Your task to perform on an android device: What is the recent news? Image 0: 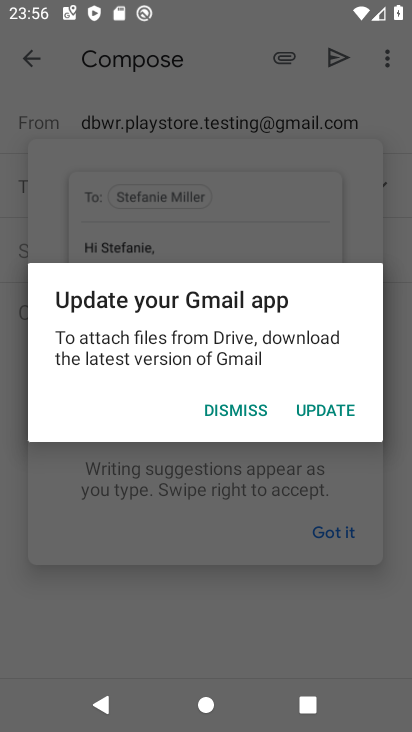
Step 0: press home button
Your task to perform on an android device: What is the recent news? Image 1: 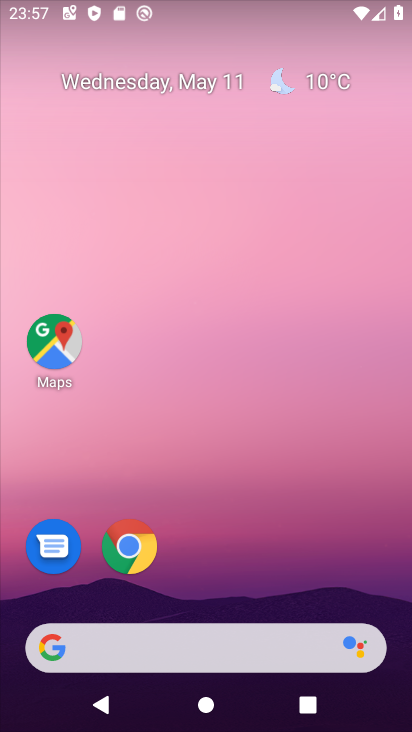
Step 1: click (127, 545)
Your task to perform on an android device: What is the recent news? Image 2: 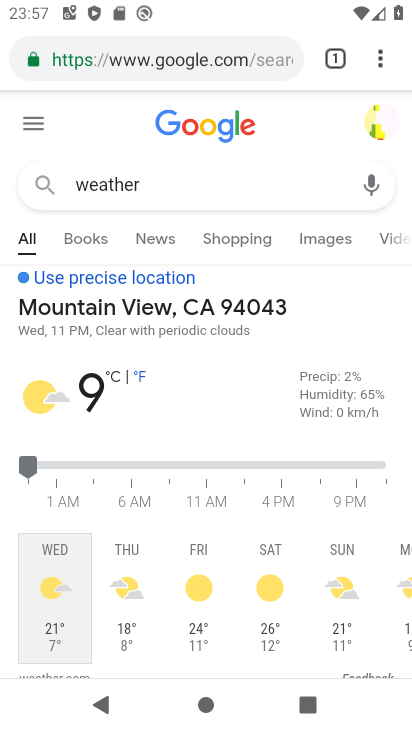
Step 2: click (99, 66)
Your task to perform on an android device: What is the recent news? Image 3: 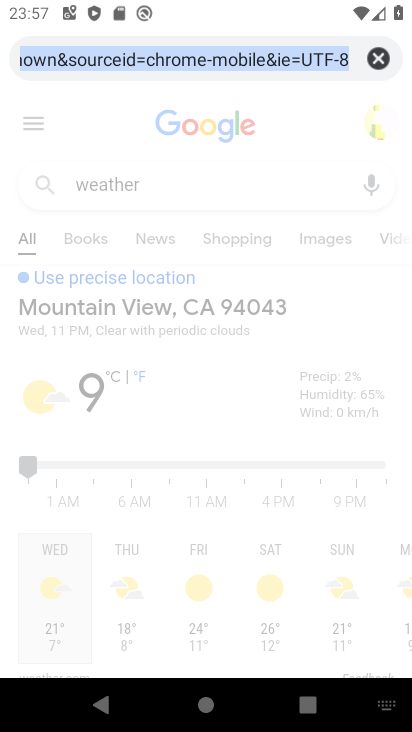
Step 3: type "recent news"
Your task to perform on an android device: What is the recent news? Image 4: 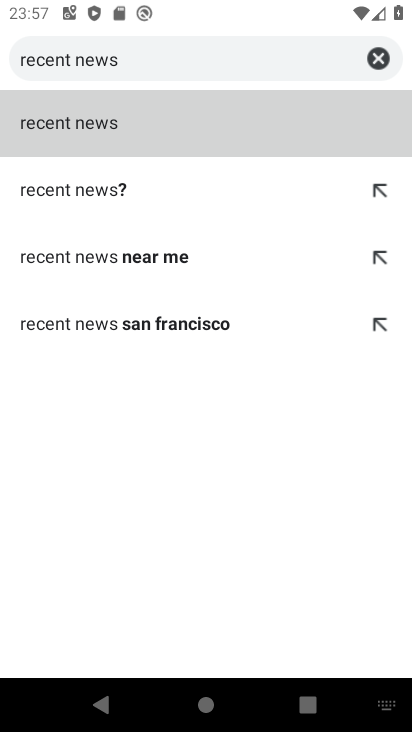
Step 4: click (182, 144)
Your task to perform on an android device: What is the recent news? Image 5: 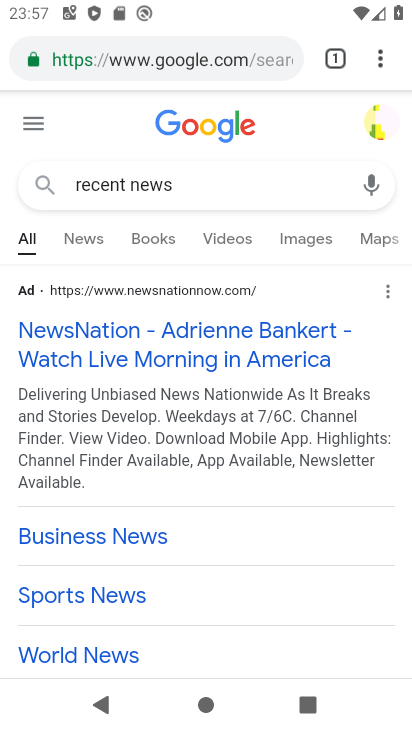
Step 5: task complete